Your task to perform on an android device: Open CNN.com Image 0: 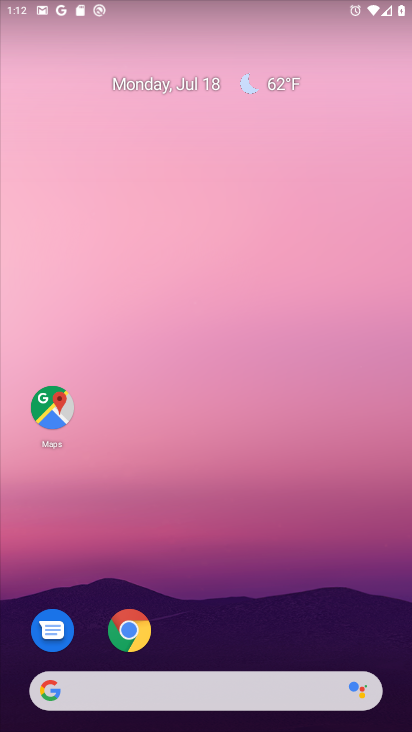
Step 0: drag from (219, 666) to (172, 202)
Your task to perform on an android device: Open CNN.com Image 1: 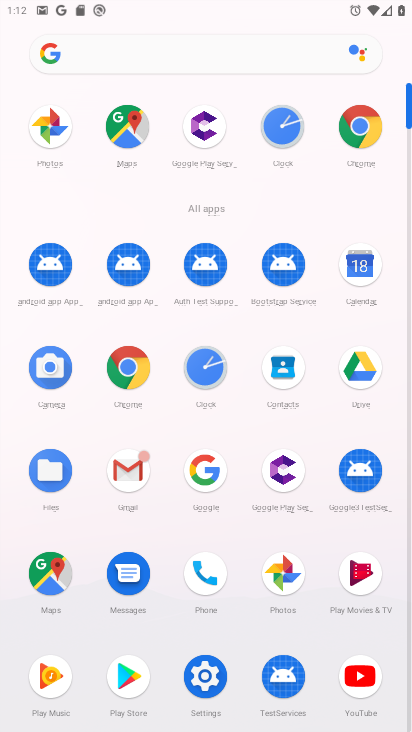
Step 1: click (209, 463)
Your task to perform on an android device: Open CNN.com Image 2: 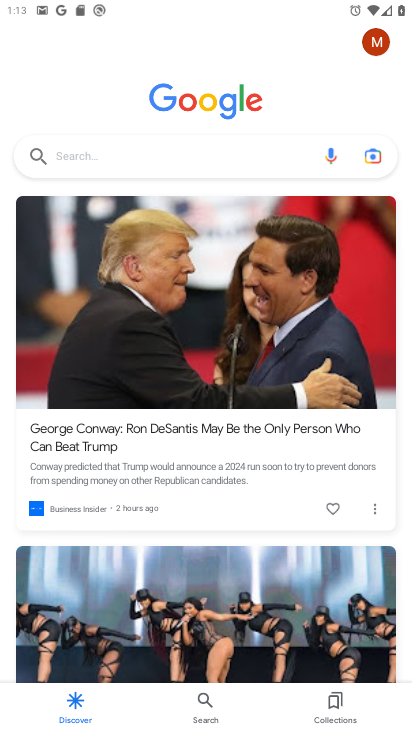
Step 2: click (117, 152)
Your task to perform on an android device: Open CNN.com Image 3: 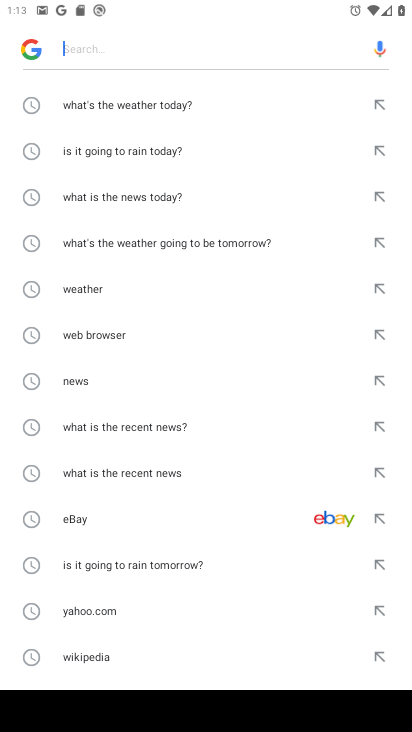
Step 3: drag from (154, 597) to (140, 184)
Your task to perform on an android device: Open CNN.com Image 4: 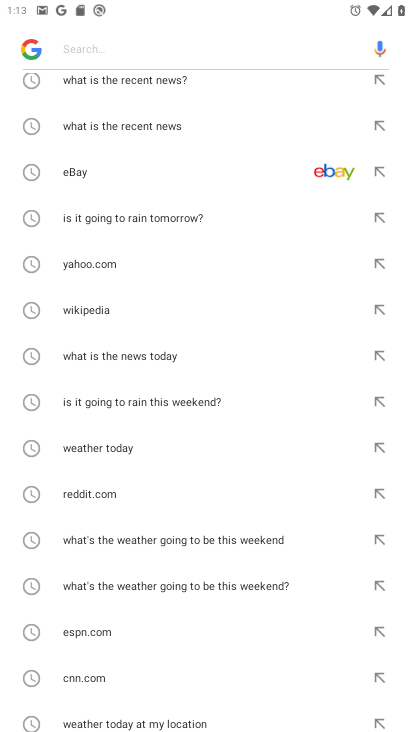
Step 4: click (82, 680)
Your task to perform on an android device: Open CNN.com Image 5: 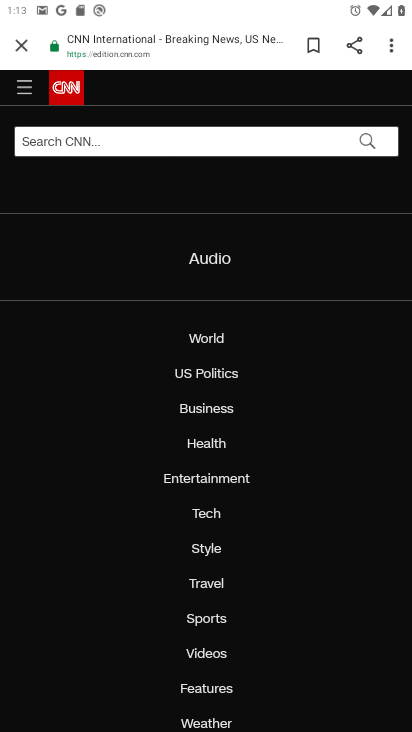
Step 5: task complete